Your task to perform on an android device: open wifi settings Image 0: 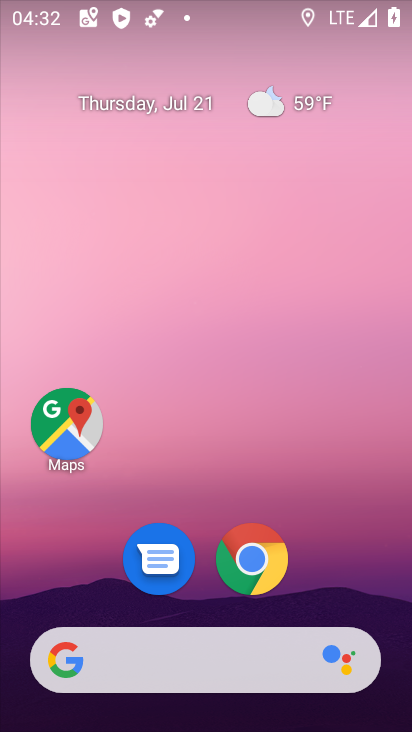
Step 0: drag from (148, 73) to (216, 699)
Your task to perform on an android device: open wifi settings Image 1: 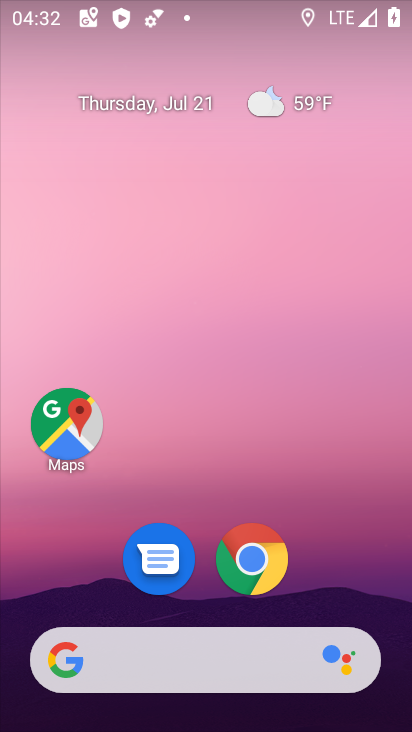
Step 1: drag from (142, 89) to (184, 672)
Your task to perform on an android device: open wifi settings Image 2: 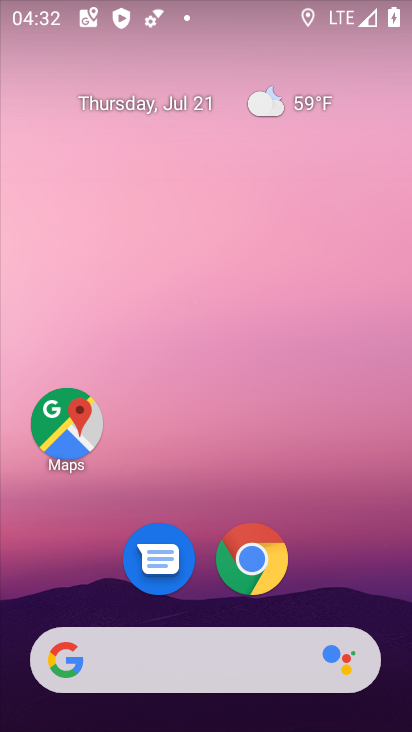
Step 2: drag from (82, 17) to (216, 674)
Your task to perform on an android device: open wifi settings Image 3: 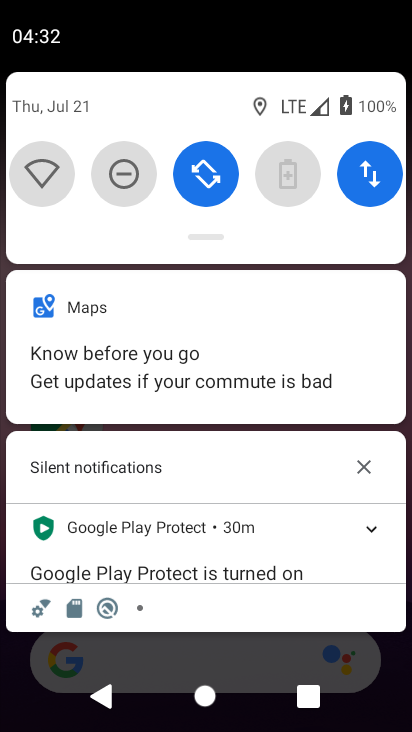
Step 3: click (38, 165)
Your task to perform on an android device: open wifi settings Image 4: 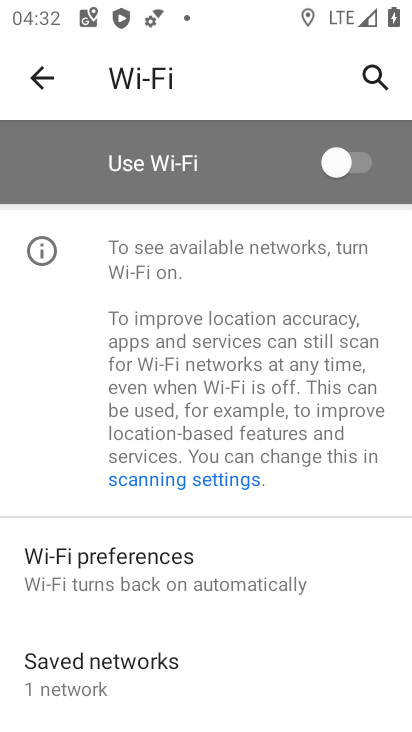
Step 4: task complete